Your task to perform on an android device: check android version Image 0: 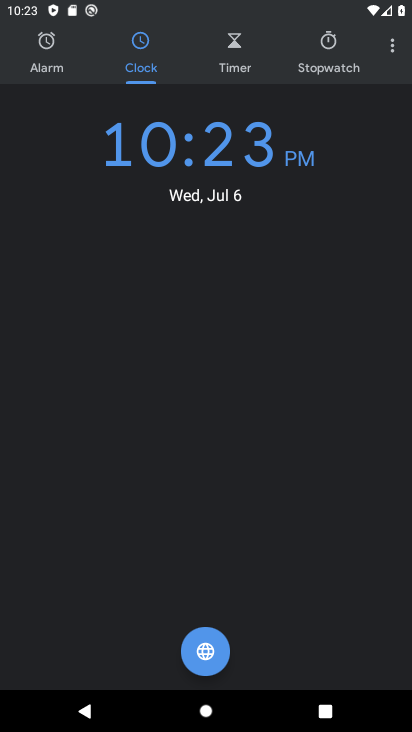
Step 0: press home button
Your task to perform on an android device: check android version Image 1: 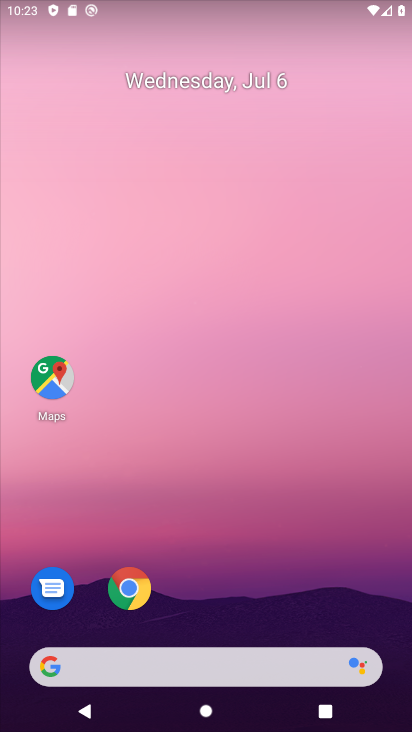
Step 1: drag from (196, 669) to (303, 133)
Your task to perform on an android device: check android version Image 2: 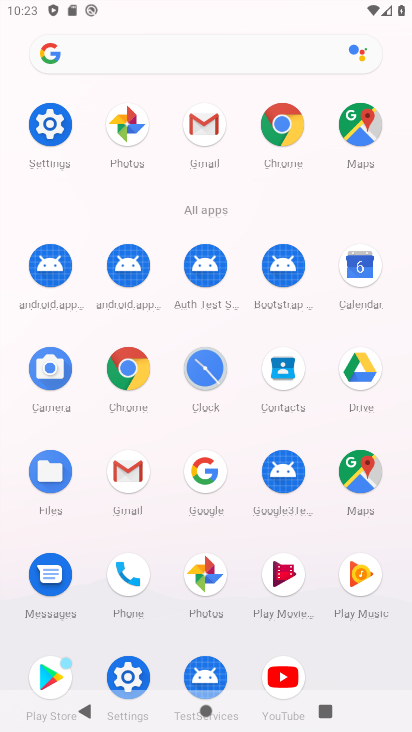
Step 2: click (51, 126)
Your task to perform on an android device: check android version Image 3: 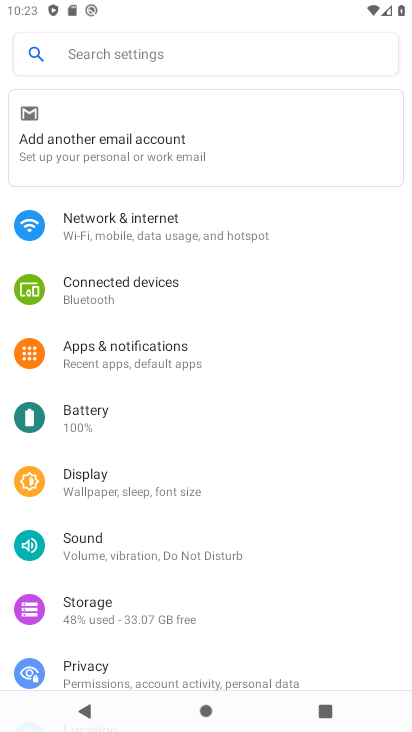
Step 3: drag from (133, 664) to (293, 93)
Your task to perform on an android device: check android version Image 4: 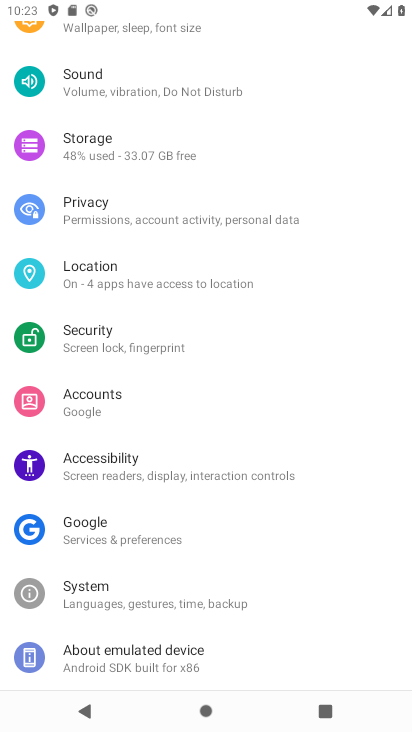
Step 4: click (160, 663)
Your task to perform on an android device: check android version Image 5: 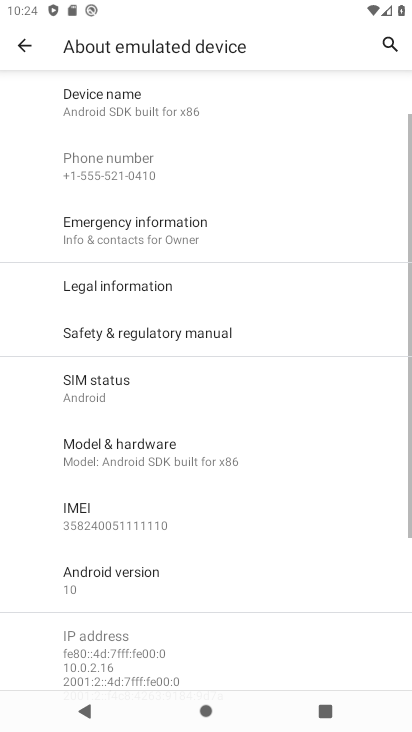
Step 5: drag from (171, 638) to (227, 392)
Your task to perform on an android device: check android version Image 6: 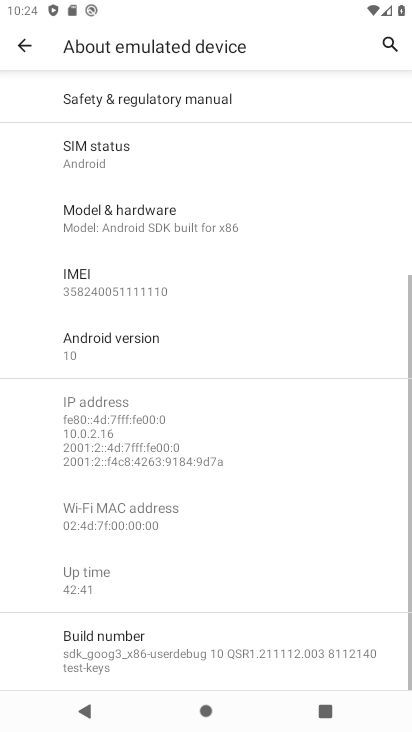
Step 6: click (126, 334)
Your task to perform on an android device: check android version Image 7: 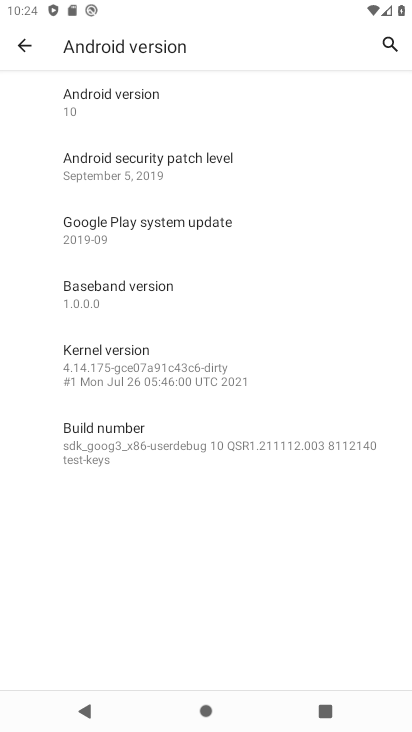
Step 7: click (131, 99)
Your task to perform on an android device: check android version Image 8: 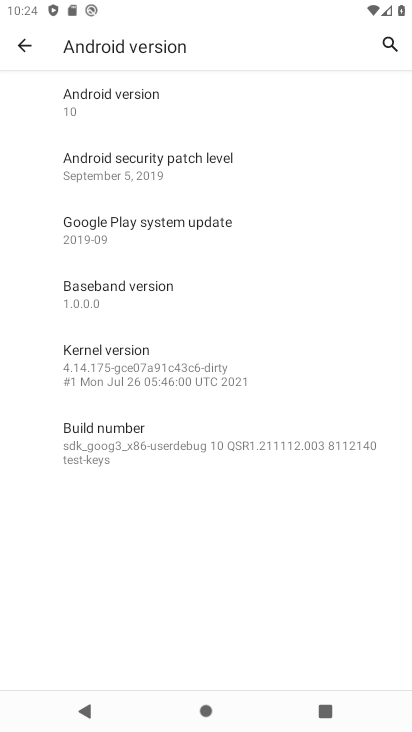
Step 8: task complete